Your task to perform on an android device: toggle data saver in the chrome app Image 0: 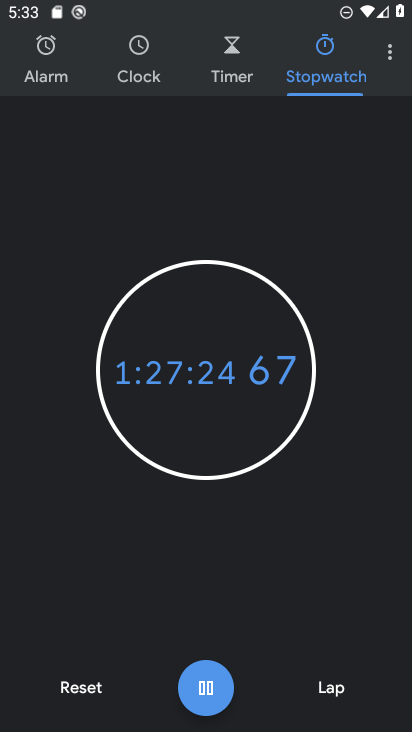
Step 0: press home button
Your task to perform on an android device: toggle data saver in the chrome app Image 1: 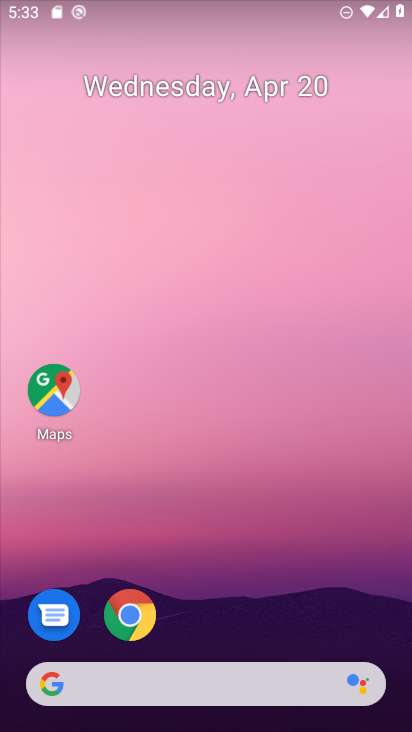
Step 1: click (136, 589)
Your task to perform on an android device: toggle data saver in the chrome app Image 2: 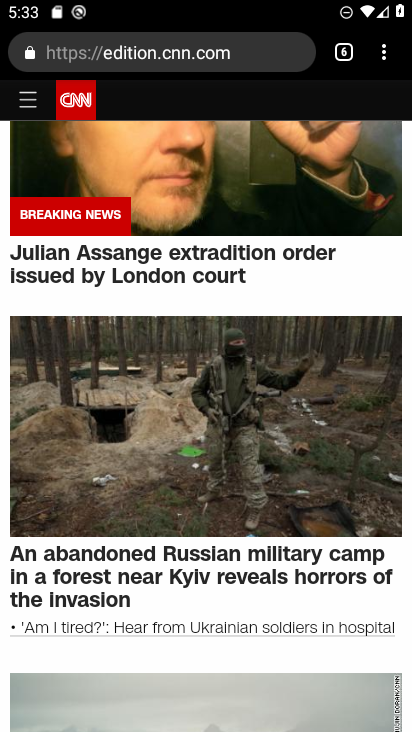
Step 2: click (381, 60)
Your task to perform on an android device: toggle data saver in the chrome app Image 3: 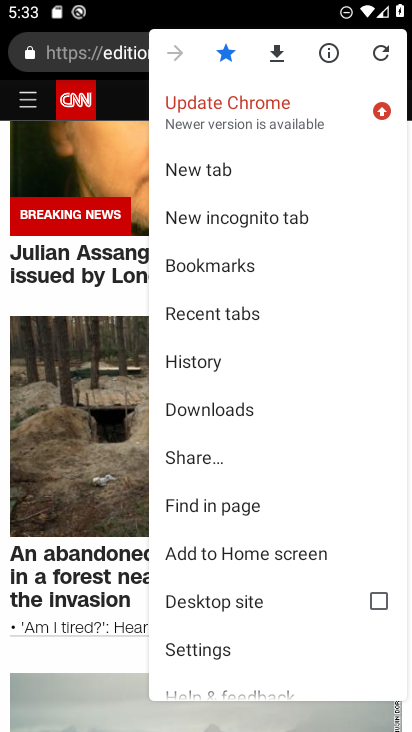
Step 3: click (261, 651)
Your task to perform on an android device: toggle data saver in the chrome app Image 4: 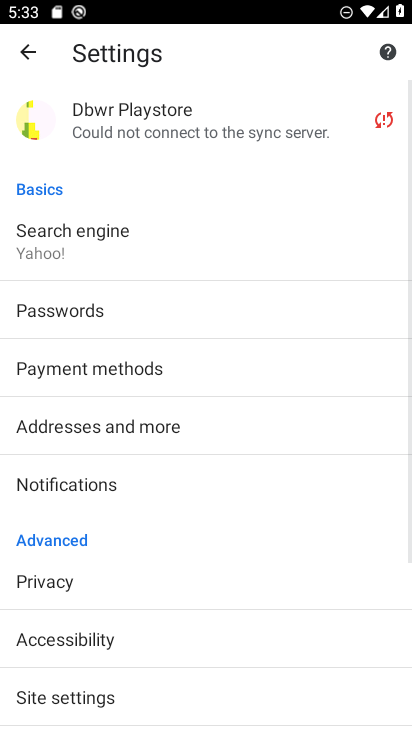
Step 4: drag from (211, 563) to (227, 262)
Your task to perform on an android device: toggle data saver in the chrome app Image 5: 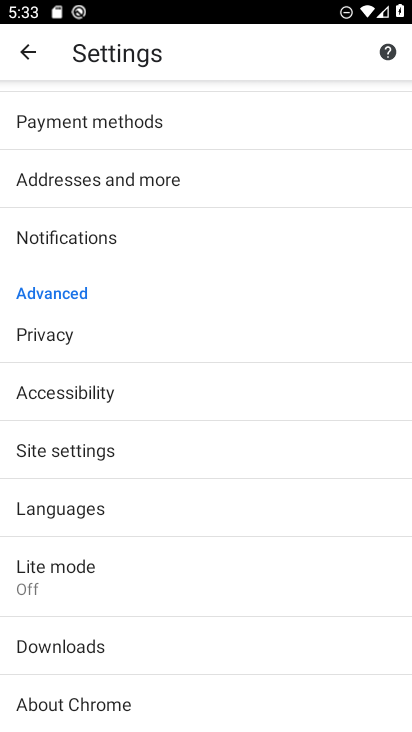
Step 5: click (66, 581)
Your task to perform on an android device: toggle data saver in the chrome app Image 6: 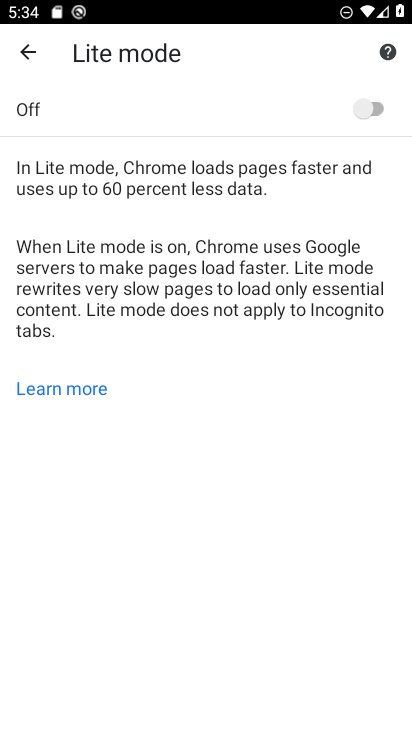
Step 6: click (378, 108)
Your task to perform on an android device: toggle data saver in the chrome app Image 7: 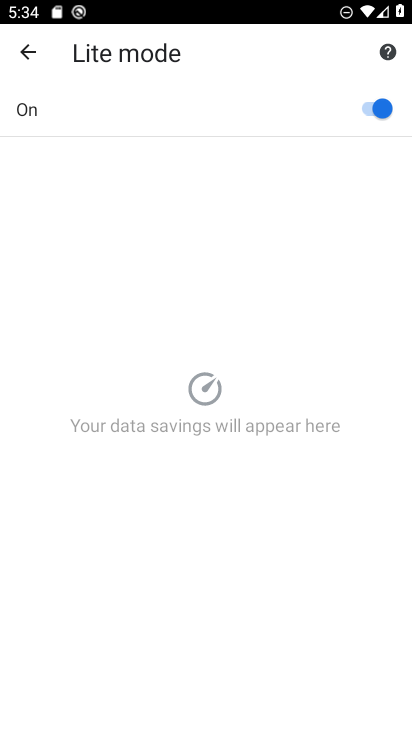
Step 7: task complete